Your task to perform on an android device: toggle location history Image 0: 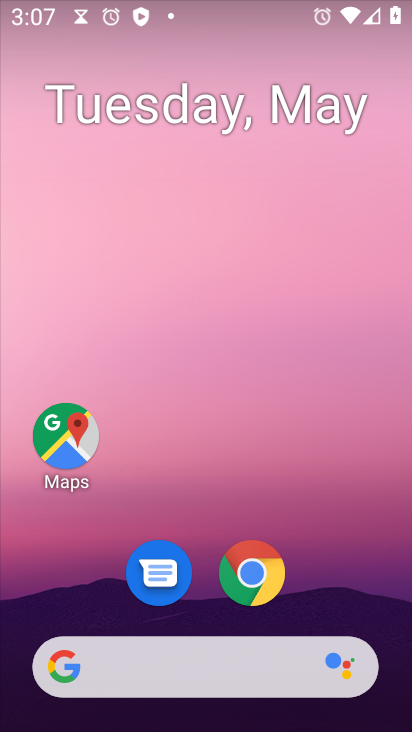
Step 0: drag from (336, 586) to (281, 34)
Your task to perform on an android device: toggle location history Image 1: 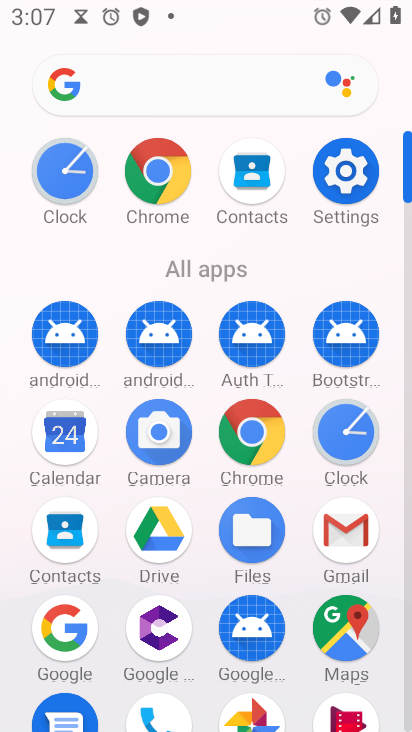
Step 1: drag from (15, 590) to (10, 180)
Your task to perform on an android device: toggle location history Image 2: 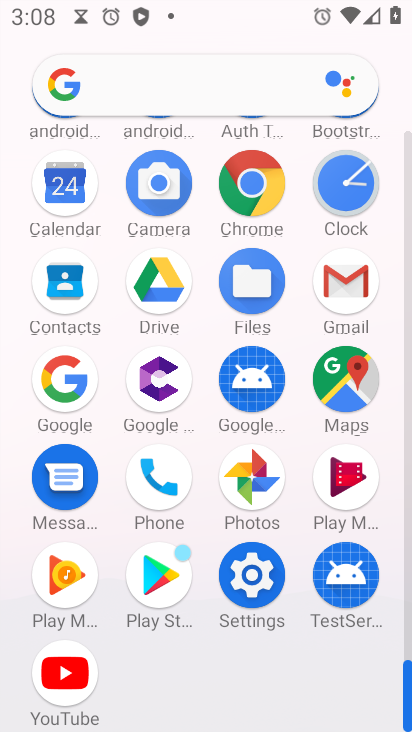
Step 2: click (249, 574)
Your task to perform on an android device: toggle location history Image 3: 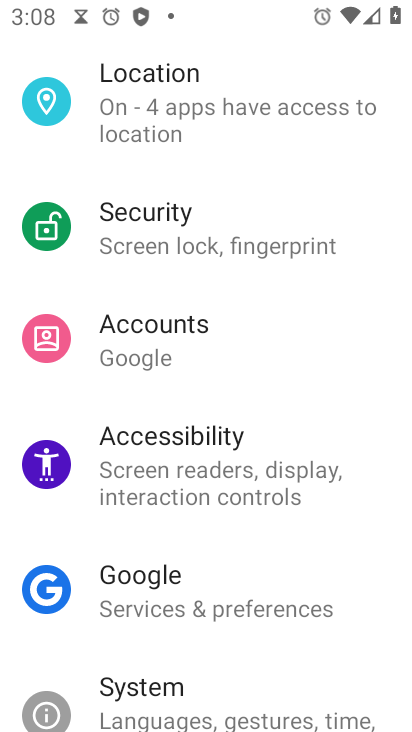
Step 3: click (194, 96)
Your task to perform on an android device: toggle location history Image 4: 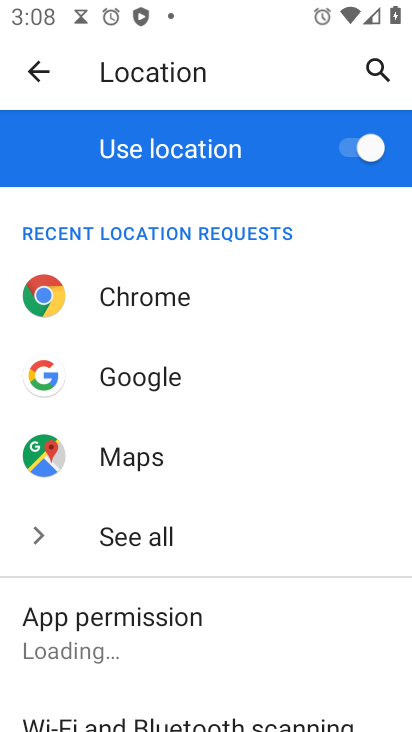
Step 4: drag from (264, 590) to (247, 164)
Your task to perform on an android device: toggle location history Image 5: 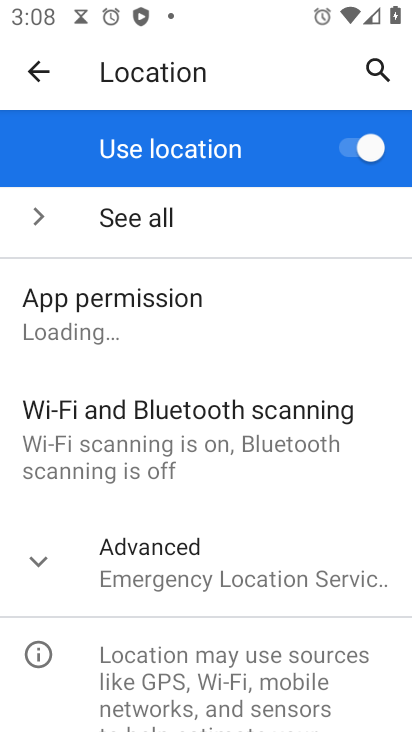
Step 5: click (70, 601)
Your task to perform on an android device: toggle location history Image 6: 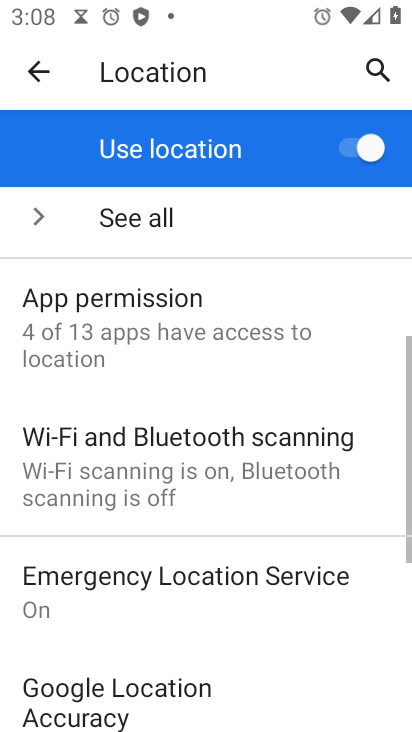
Step 6: drag from (229, 624) to (246, 226)
Your task to perform on an android device: toggle location history Image 7: 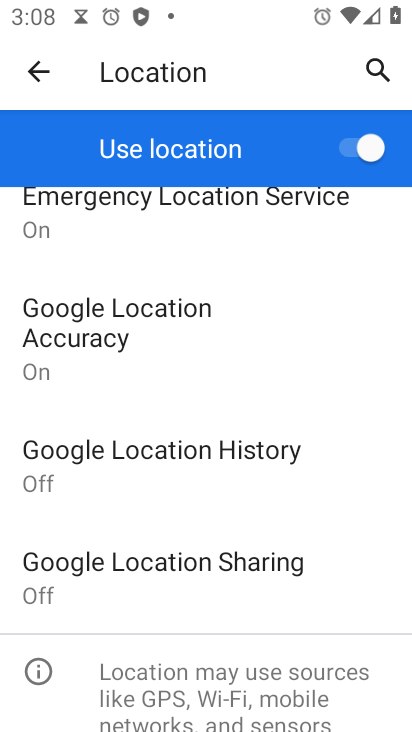
Step 7: click (196, 462)
Your task to perform on an android device: toggle location history Image 8: 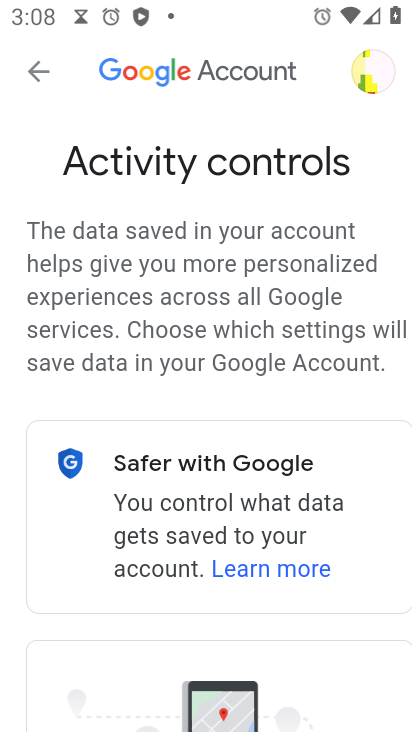
Step 8: drag from (140, 562) to (108, 94)
Your task to perform on an android device: toggle location history Image 9: 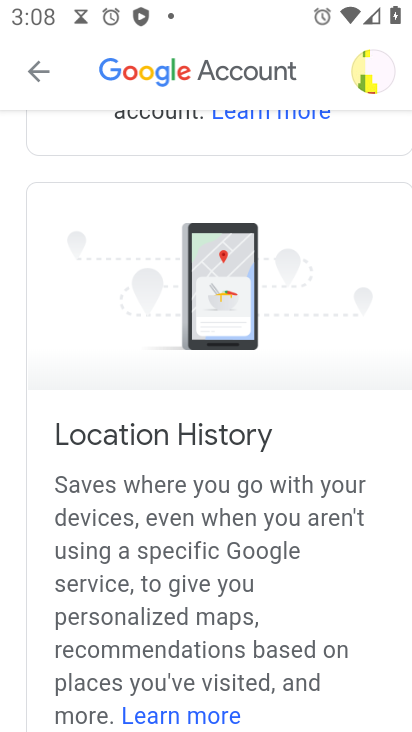
Step 9: drag from (133, 535) to (72, 241)
Your task to perform on an android device: toggle location history Image 10: 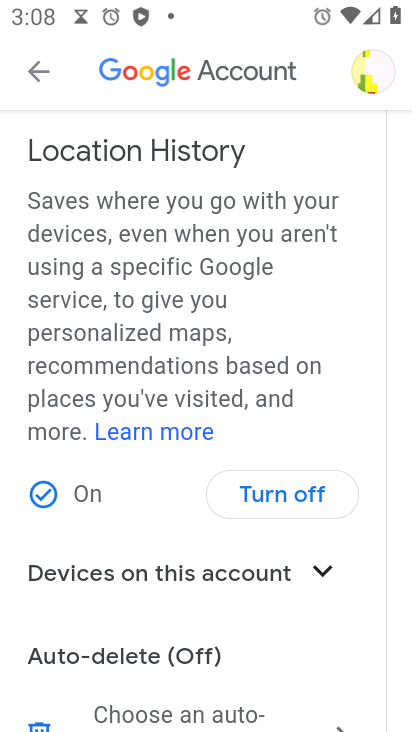
Step 10: drag from (129, 637) to (147, 345)
Your task to perform on an android device: toggle location history Image 11: 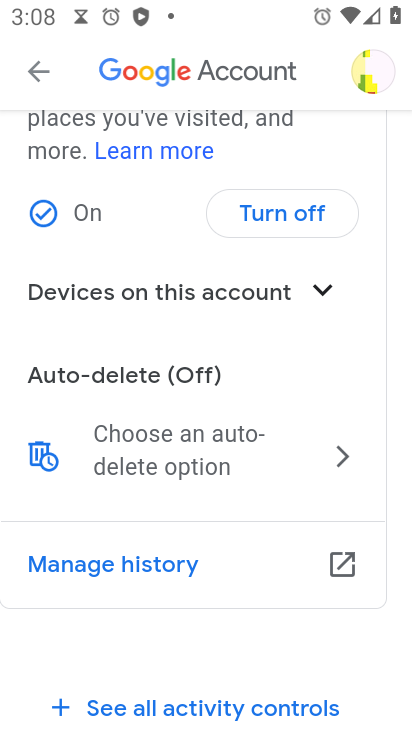
Step 11: click (324, 214)
Your task to perform on an android device: toggle location history Image 12: 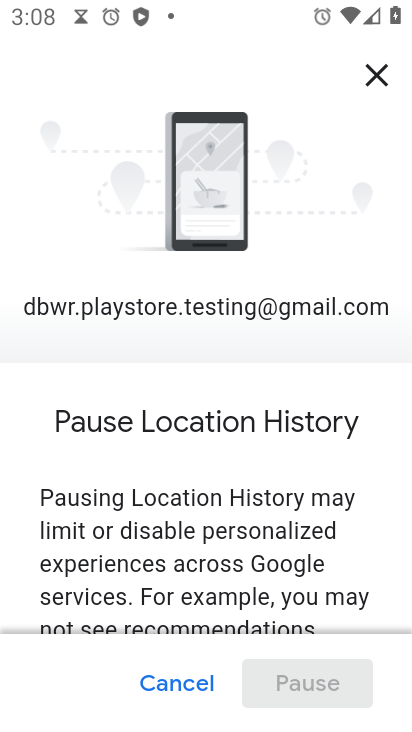
Step 12: drag from (272, 538) to (241, 93)
Your task to perform on an android device: toggle location history Image 13: 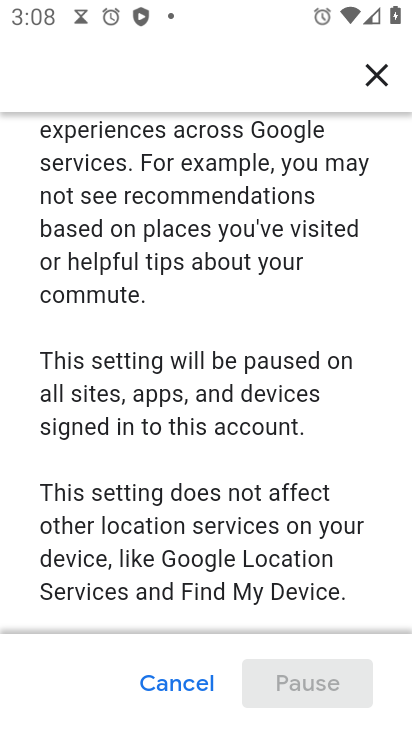
Step 13: drag from (233, 501) to (224, 168)
Your task to perform on an android device: toggle location history Image 14: 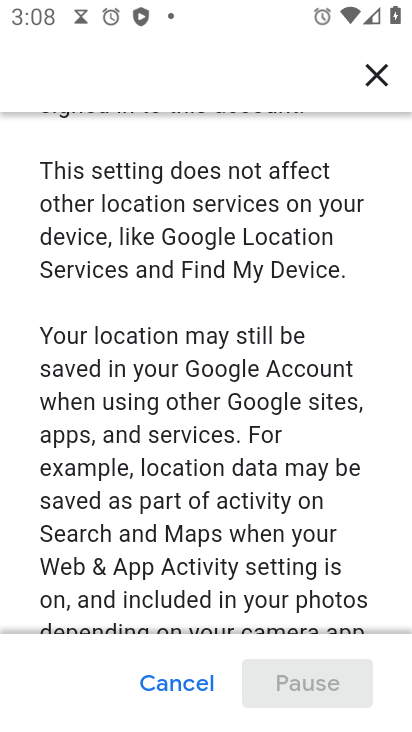
Step 14: drag from (177, 596) to (174, 189)
Your task to perform on an android device: toggle location history Image 15: 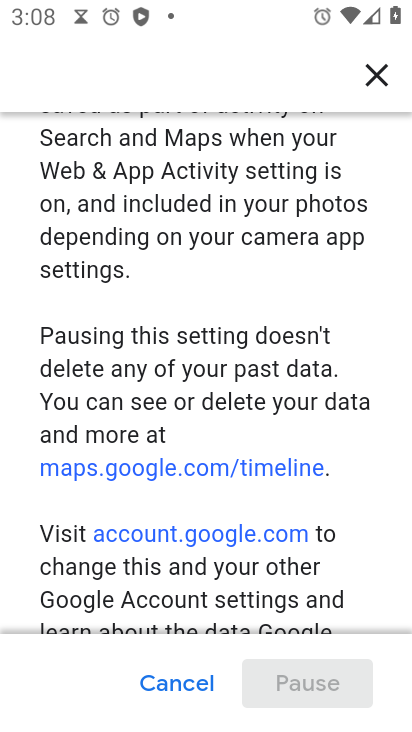
Step 15: drag from (356, 557) to (308, 219)
Your task to perform on an android device: toggle location history Image 16: 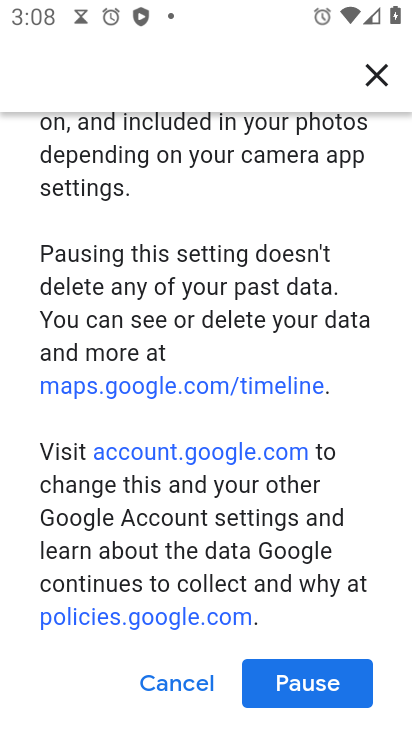
Step 16: click (304, 674)
Your task to perform on an android device: toggle location history Image 17: 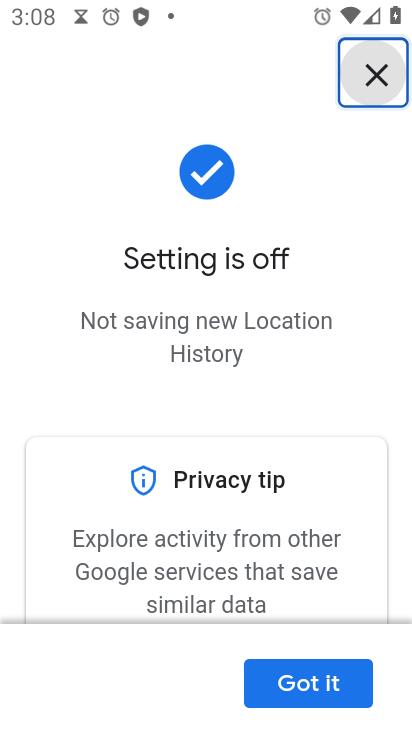
Step 17: task complete